Your task to perform on an android device: Go to eBay Image 0: 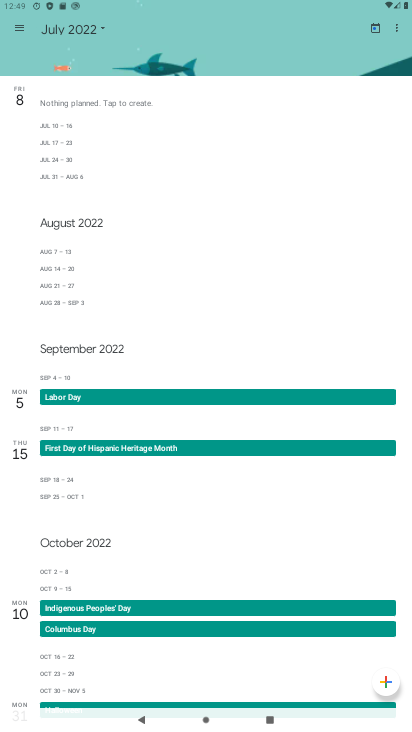
Step 0: press home button
Your task to perform on an android device: Go to eBay Image 1: 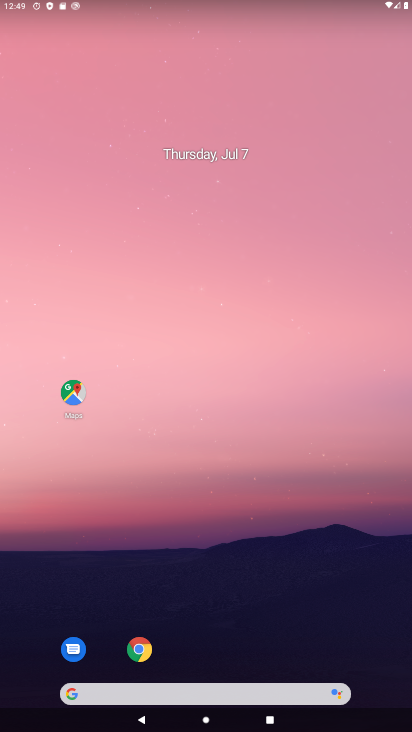
Step 1: drag from (189, 671) to (210, 115)
Your task to perform on an android device: Go to eBay Image 2: 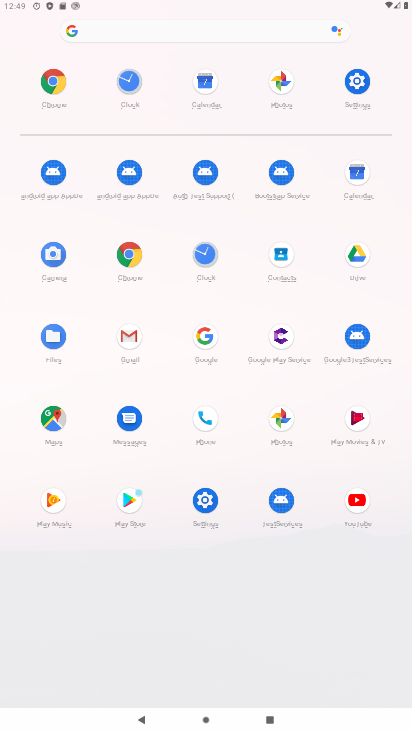
Step 2: click (120, 256)
Your task to perform on an android device: Go to eBay Image 3: 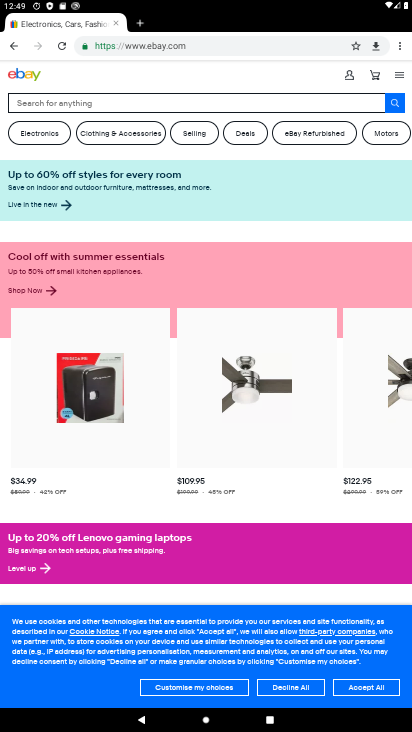
Step 3: task complete